Your task to perform on an android device: open a bookmark in the chrome app Image 0: 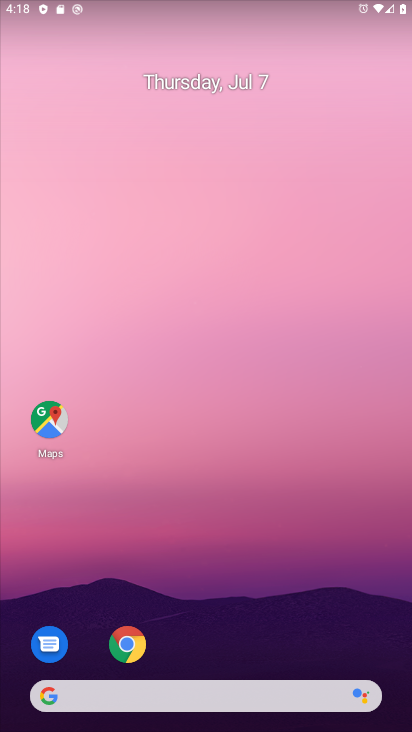
Step 0: drag from (266, 636) to (272, 102)
Your task to perform on an android device: open a bookmark in the chrome app Image 1: 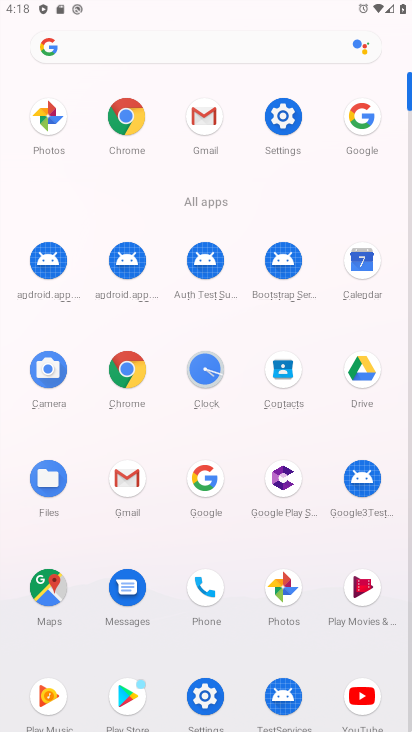
Step 1: click (126, 119)
Your task to perform on an android device: open a bookmark in the chrome app Image 2: 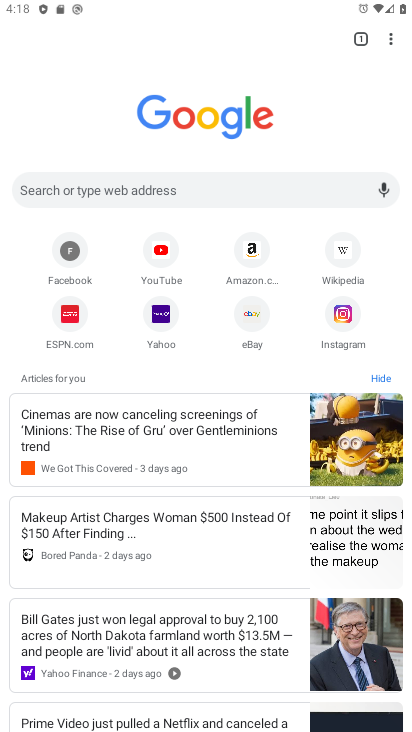
Step 2: click (394, 40)
Your task to perform on an android device: open a bookmark in the chrome app Image 3: 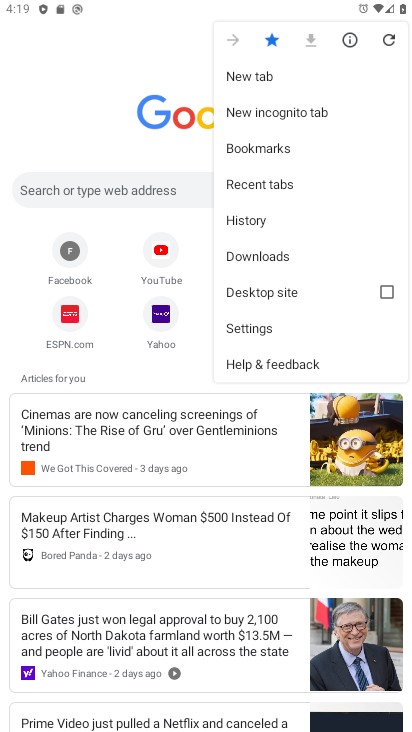
Step 3: click (274, 152)
Your task to perform on an android device: open a bookmark in the chrome app Image 4: 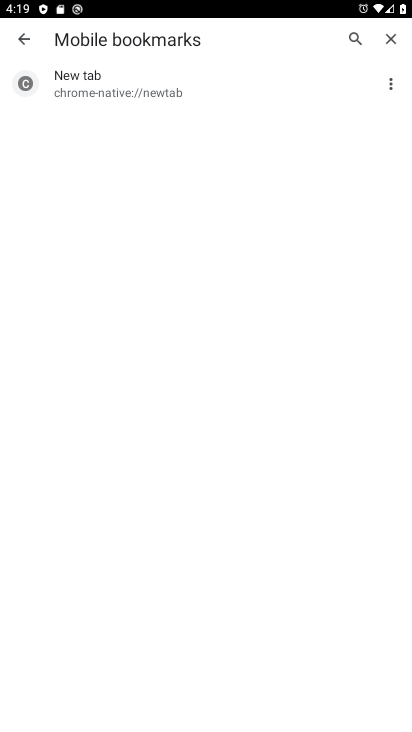
Step 4: task complete